Your task to perform on an android device: Go to Reddit.com Image 0: 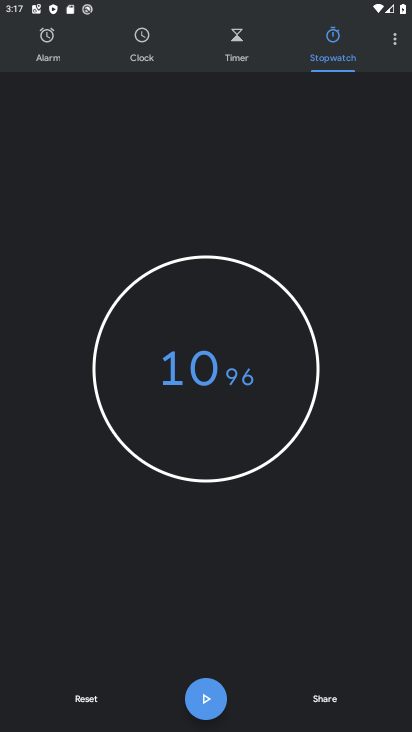
Step 0: press back button
Your task to perform on an android device: Go to Reddit.com Image 1: 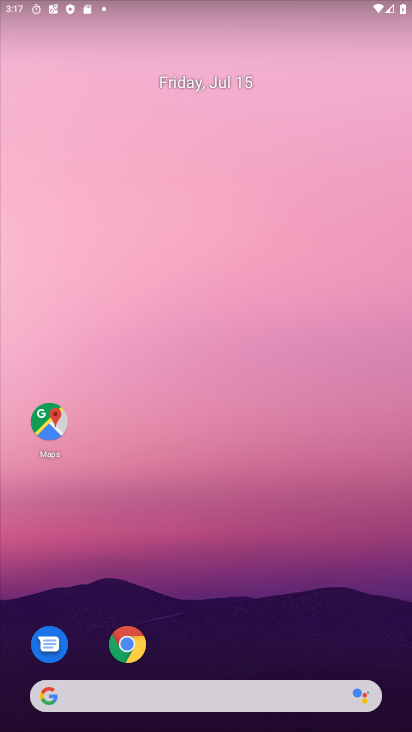
Step 1: click (137, 633)
Your task to perform on an android device: Go to Reddit.com Image 2: 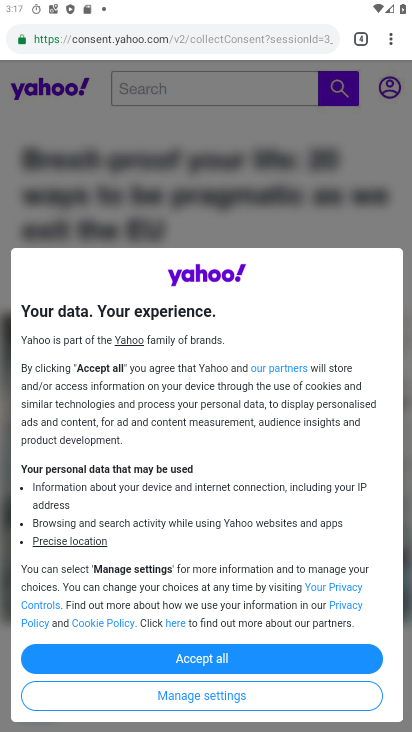
Step 2: click (359, 37)
Your task to perform on an android device: Go to Reddit.com Image 3: 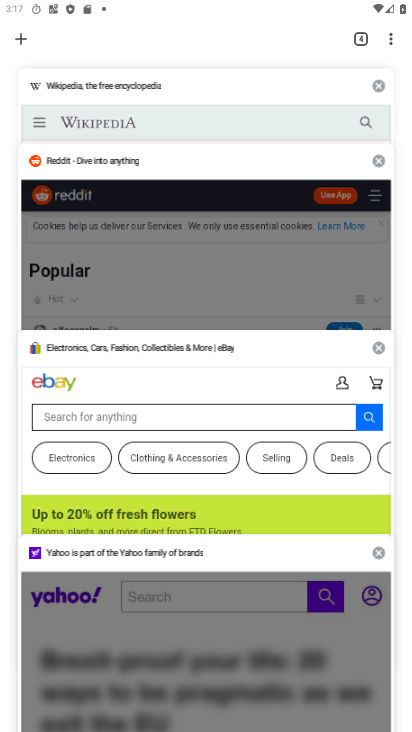
Step 3: click (58, 165)
Your task to perform on an android device: Go to Reddit.com Image 4: 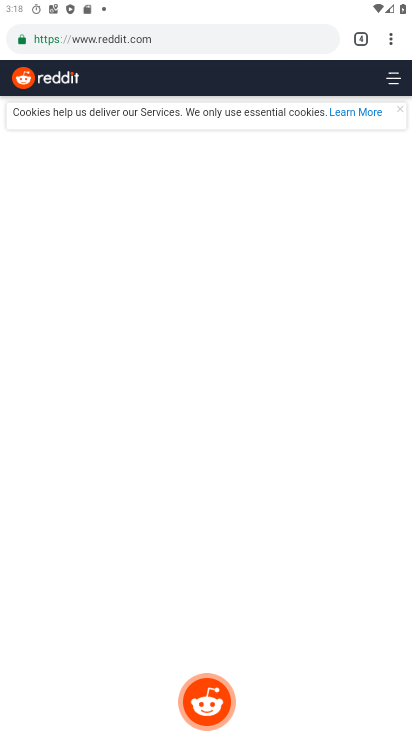
Step 4: task complete